Your task to perform on an android device: turn on the 12-hour format for clock Image 0: 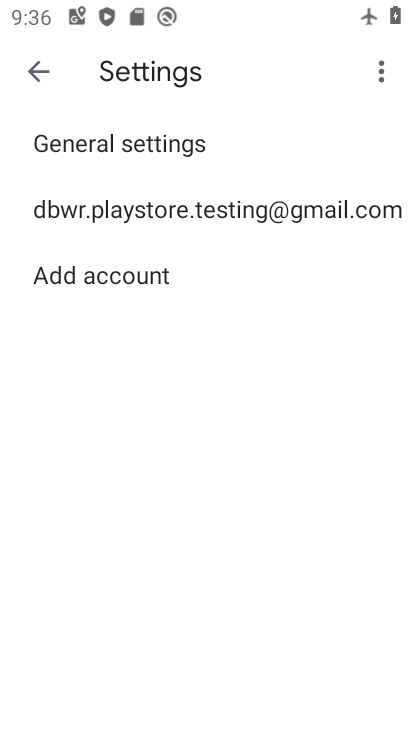
Step 0: press home button
Your task to perform on an android device: turn on the 12-hour format for clock Image 1: 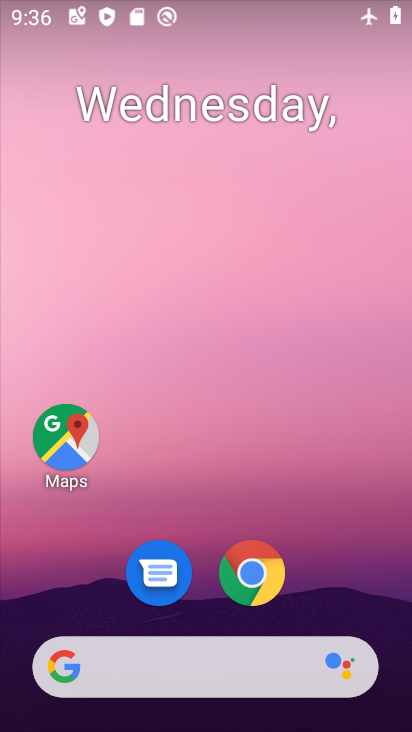
Step 1: drag from (388, 603) to (377, 199)
Your task to perform on an android device: turn on the 12-hour format for clock Image 2: 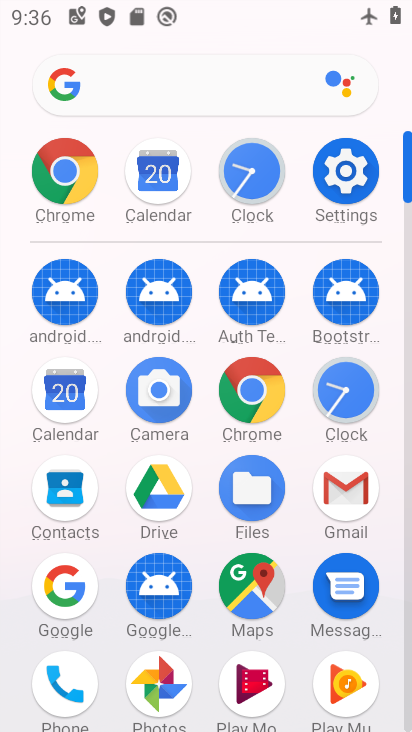
Step 2: click (336, 394)
Your task to perform on an android device: turn on the 12-hour format for clock Image 3: 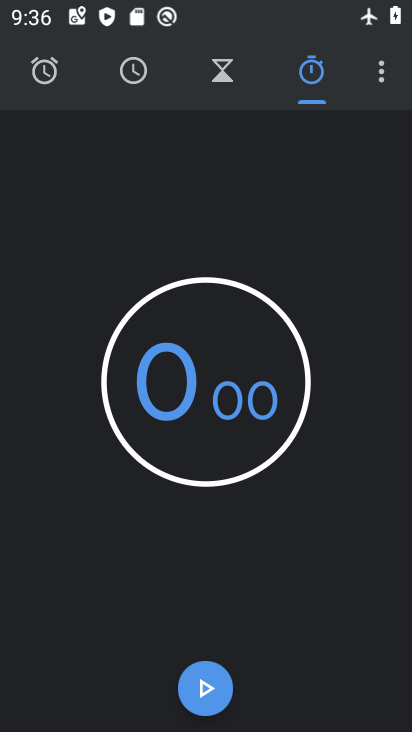
Step 3: click (383, 67)
Your task to perform on an android device: turn on the 12-hour format for clock Image 4: 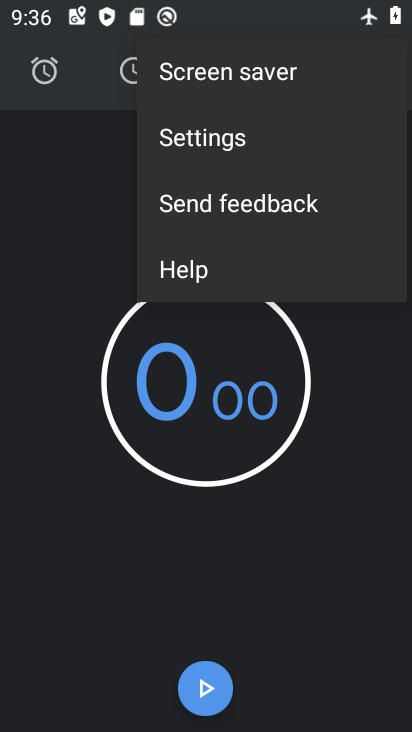
Step 4: click (186, 141)
Your task to perform on an android device: turn on the 12-hour format for clock Image 5: 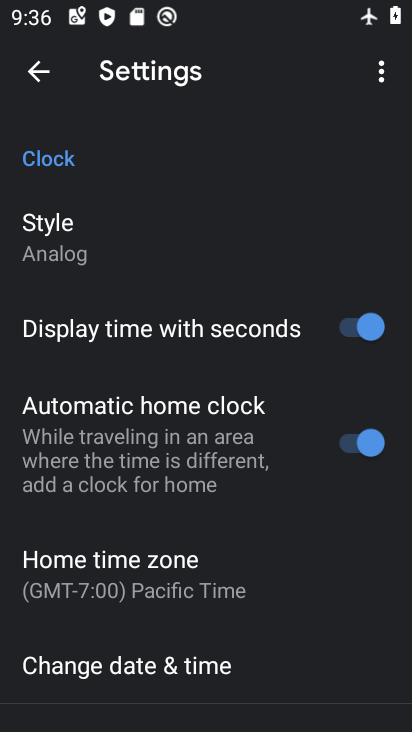
Step 5: click (165, 668)
Your task to perform on an android device: turn on the 12-hour format for clock Image 6: 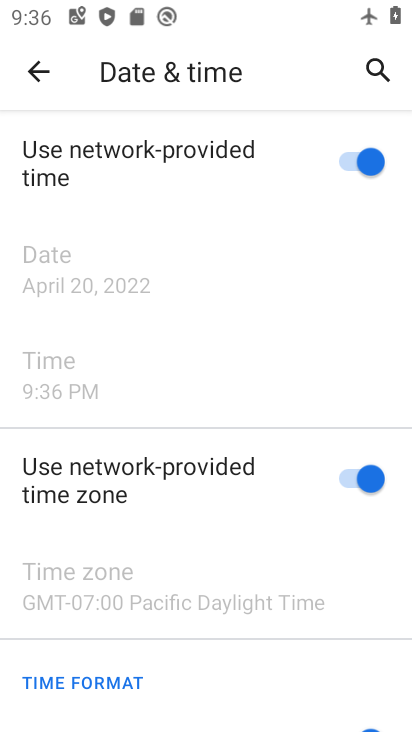
Step 6: drag from (251, 376) to (251, 324)
Your task to perform on an android device: turn on the 12-hour format for clock Image 7: 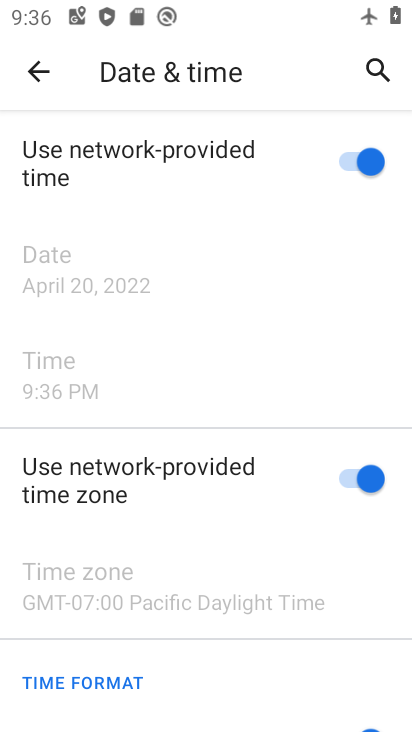
Step 7: drag from (276, 371) to (284, 267)
Your task to perform on an android device: turn on the 12-hour format for clock Image 8: 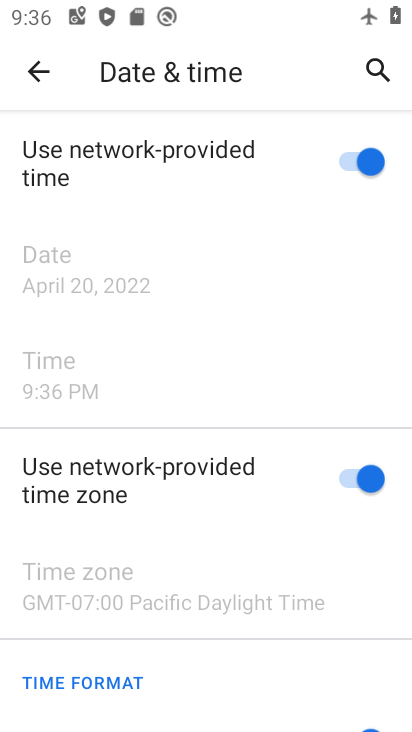
Step 8: drag from (272, 346) to (271, 244)
Your task to perform on an android device: turn on the 12-hour format for clock Image 9: 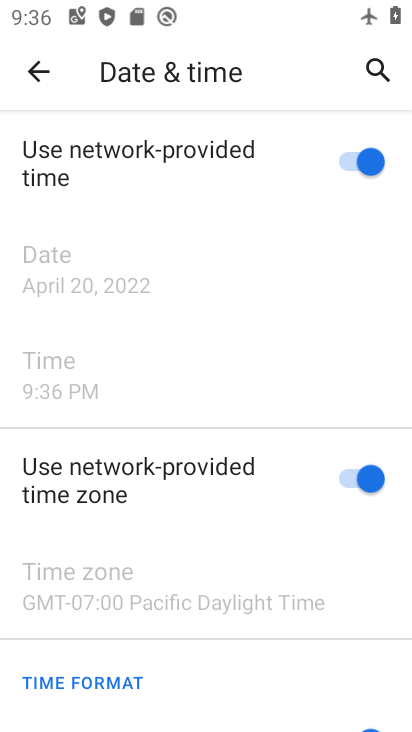
Step 9: click (237, 295)
Your task to perform on an android device: turn on the 12-hour format for clock Image 10: 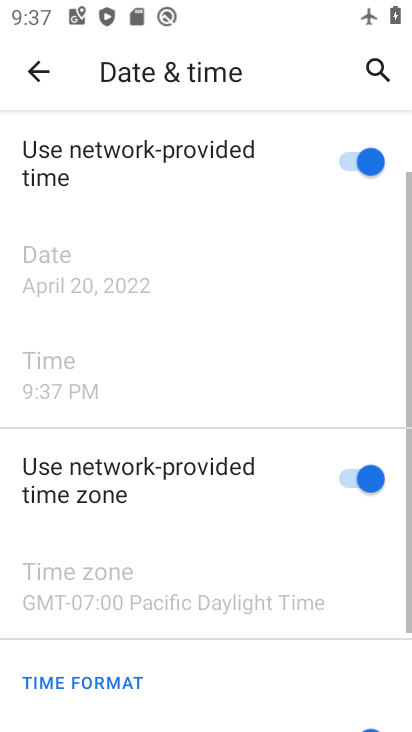
Step 10: task complete